Your task to perform on an android device: turn on translation in the chrome app Image 0: 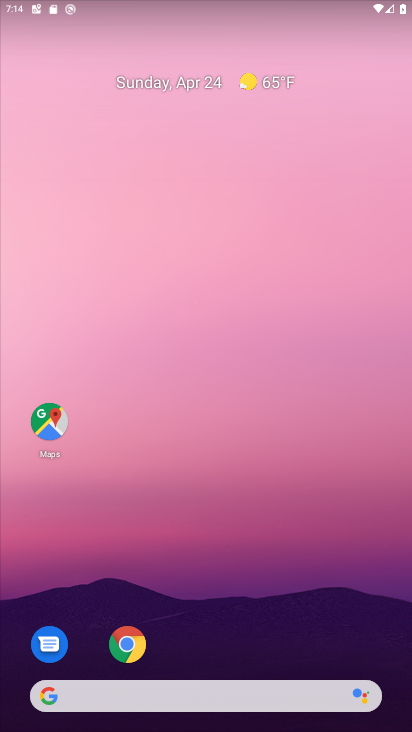
Step 0: click (127, 639)
Your task to perform on an android device: turn on translation in the chrome app Image 1: 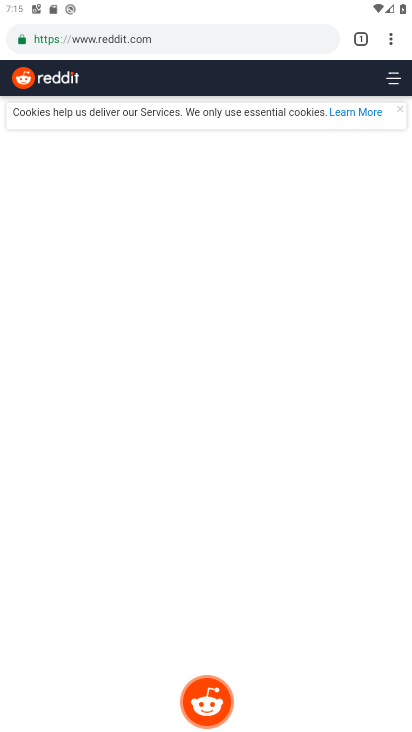
Step 1: click (388, 43)
Your task to perform on an android device: turn on translation in the chrome app Image 2: 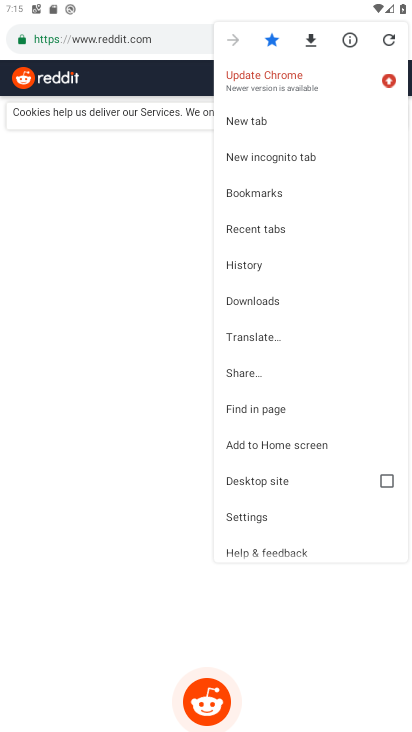
Step 2: click (275, 512)
Your task to perform on an android device: turn on translation in the chrome app Image 3: 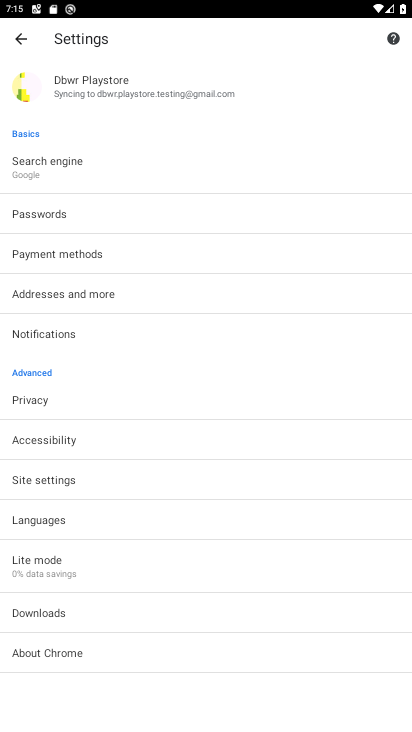
Step 3: click (81, 522)
Your task to perform on an android device: turn on translation in the chrome app Image 4: 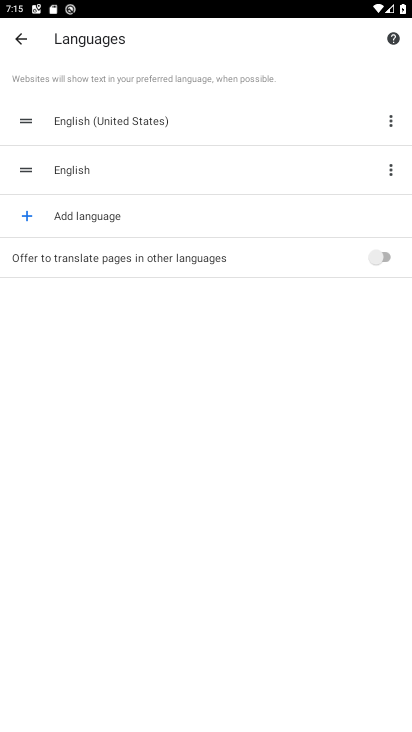
Step 4: click (380, 251)
Your task to perform on an android device: turn on translation in the chrome app Image 5: 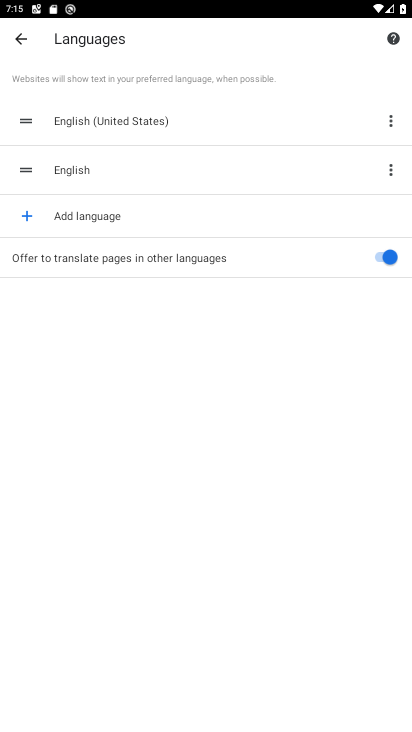
Step 5: task complete